Your task to perform on an android device: find snoozed emails in the gmail app Image 0: 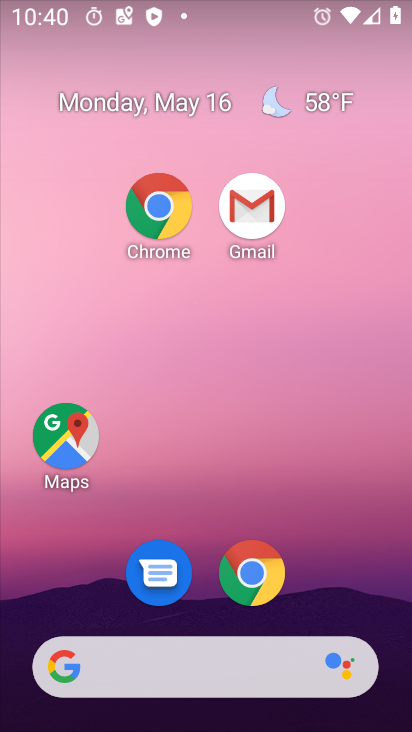
Step 0: drag from (304, 635) to (159, 239)
Your task to perform on an android device: find snoozed emails in the gmail app Image 1: 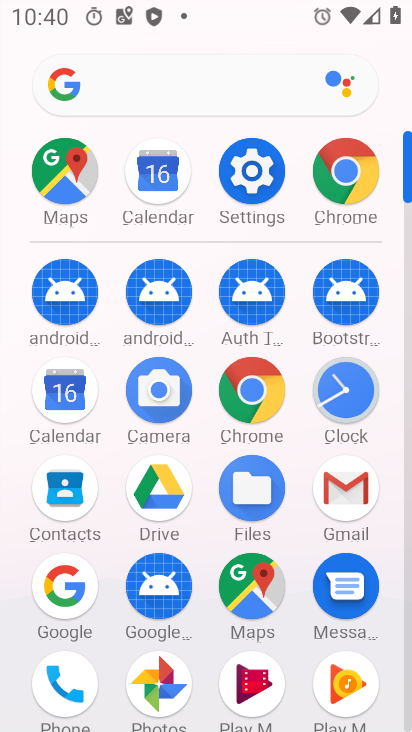
Step 1: click (351, 486)
Your task to perform on an android device: find snoozed emails in the gmail app Image 2: 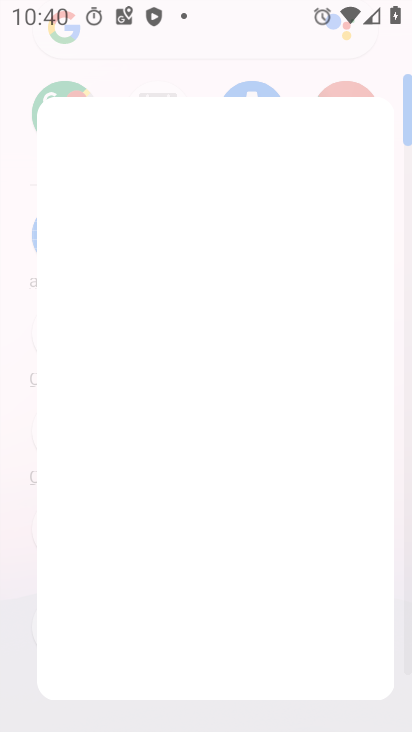
Step 2: click (351, 486)
Your task to perform on an android device: find snoozed emails in the gmail app Image 3: 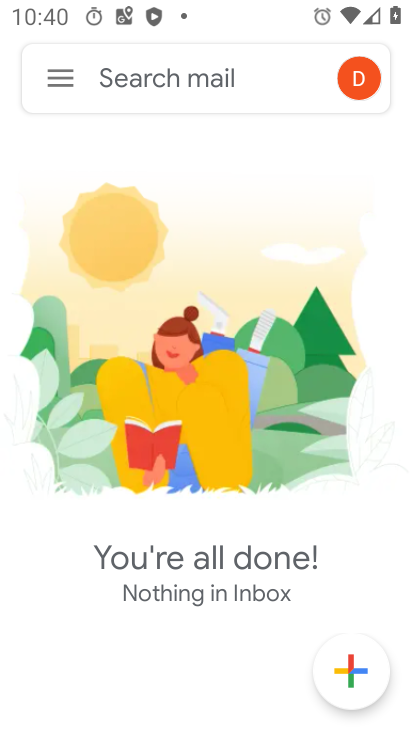
Step 3: click (45, 73)
Your task to perform on an android device: find snoozed emails in the gmail app Image 4: 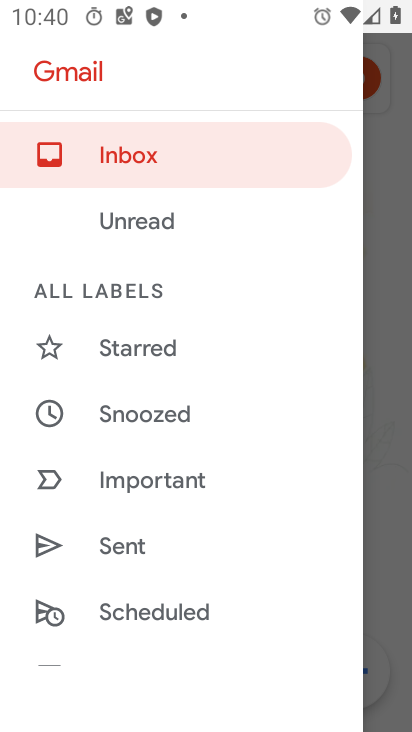
Step 4: click (148, 416)
Your task to perform on an android device: find snoozed emails in the gmail app Image 5: 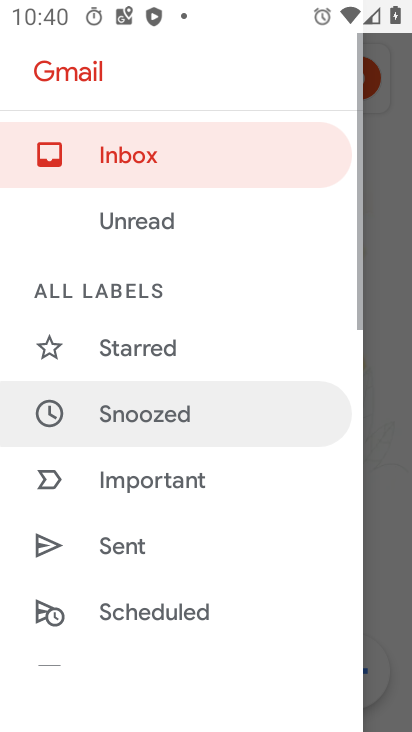
Step 5: click (149, 409)
Your task to perform on an android device: find snoozed emails in the gmail app Image 6: 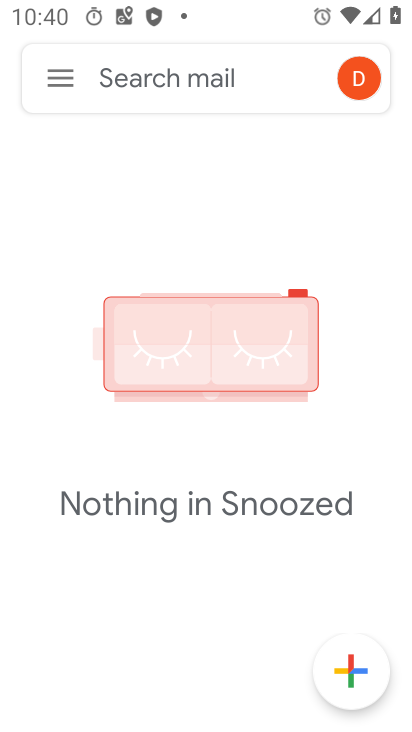
Step 6: task complete